Your task to perform on an android device: Clear all items from cart on target. Add dell xps to the cart on target Image 0: 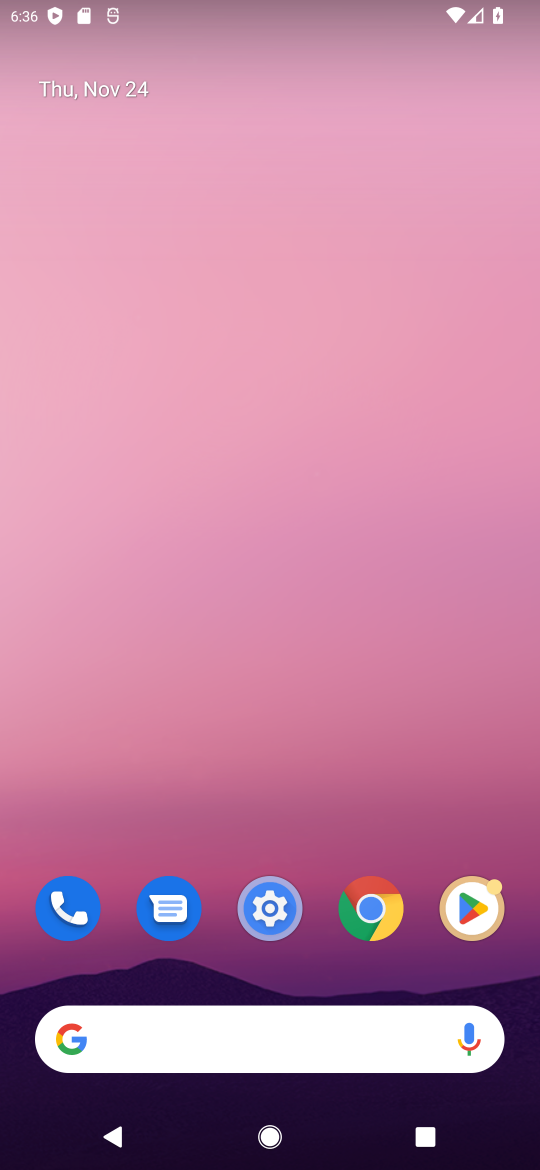
Step 0: click (289, 1021)
Your task to perform on an android device: Clear all items from cart on target. Add dell xps to the cart on target Image 1: 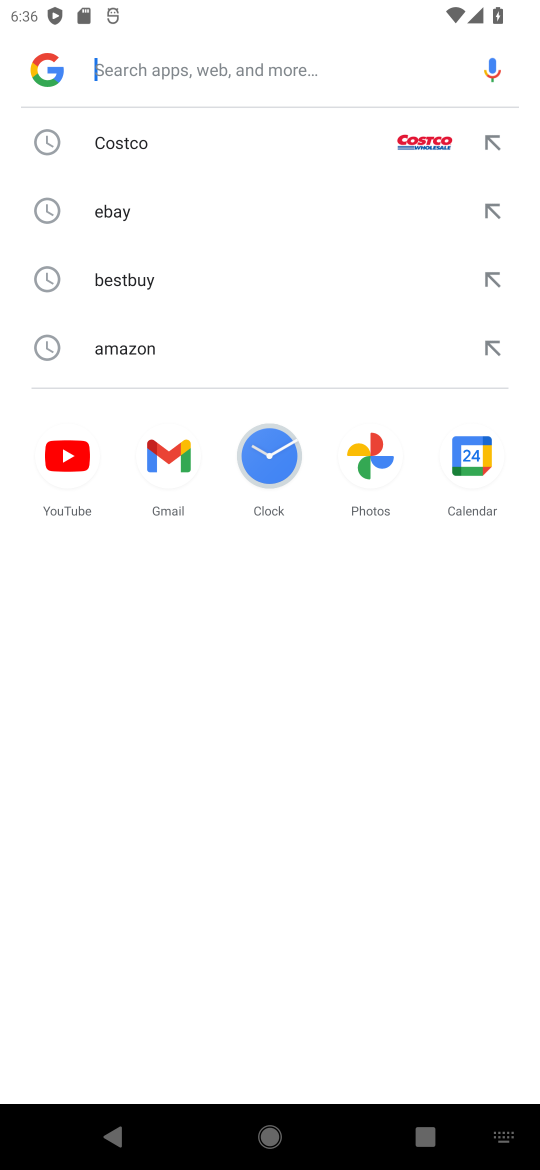
Step 1: type "taget"
Your task to perform on an android device: Clear all items from cart on target. Add dell xps to the cart on target Image 2: 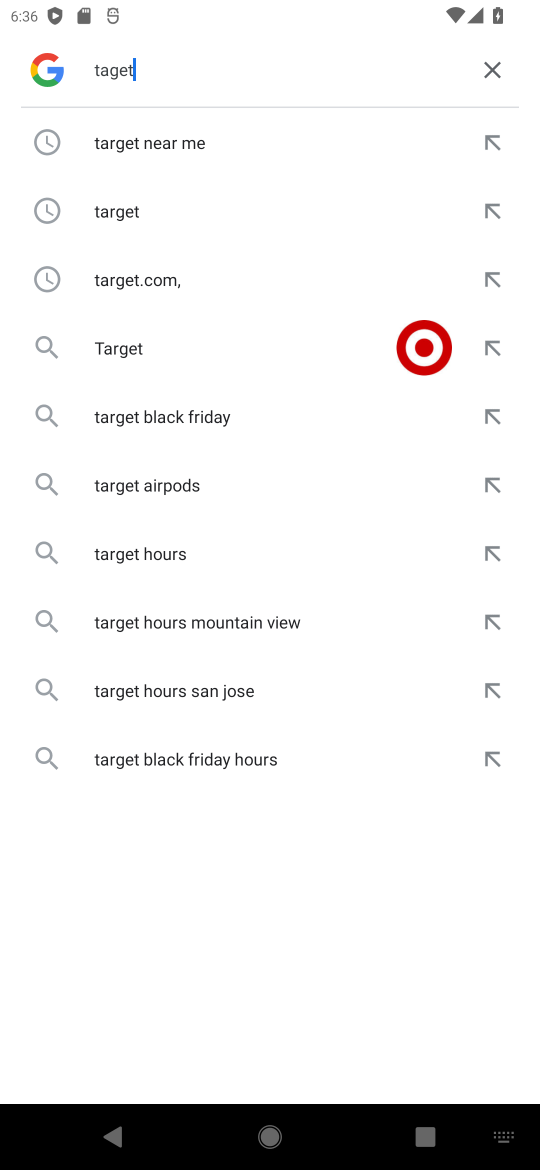
Step 2: click (103, 226)
Your task to perform on an android device: Clear all items from cart on target. Add dell xps to the cart on target Image 3: 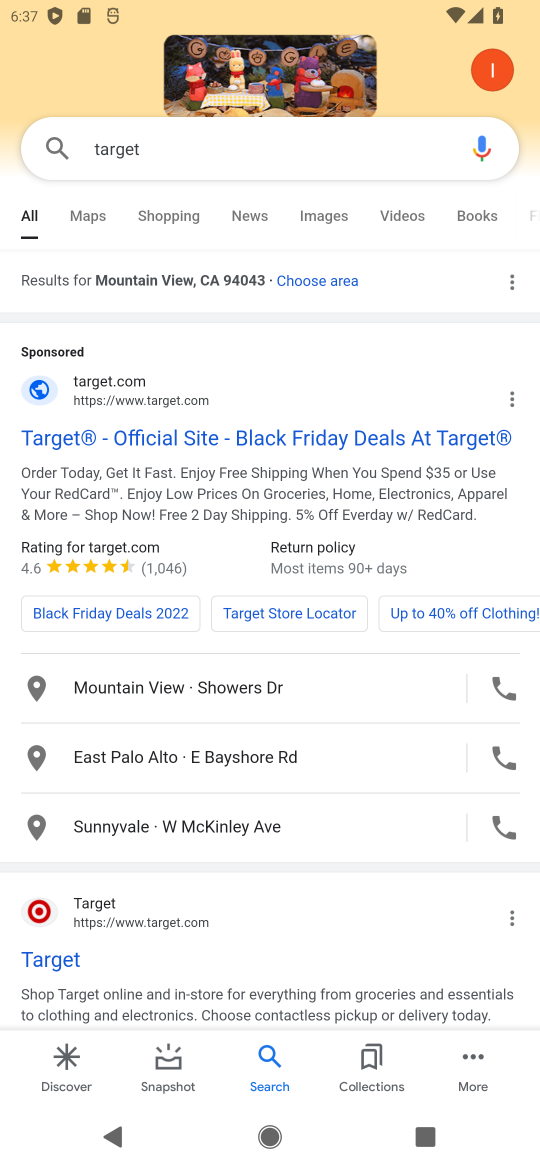
Step 3: click (148, 447)
Your task to perform on an android device: Clear all items from cart on target. Add dell xps to the cart on target Image 4: 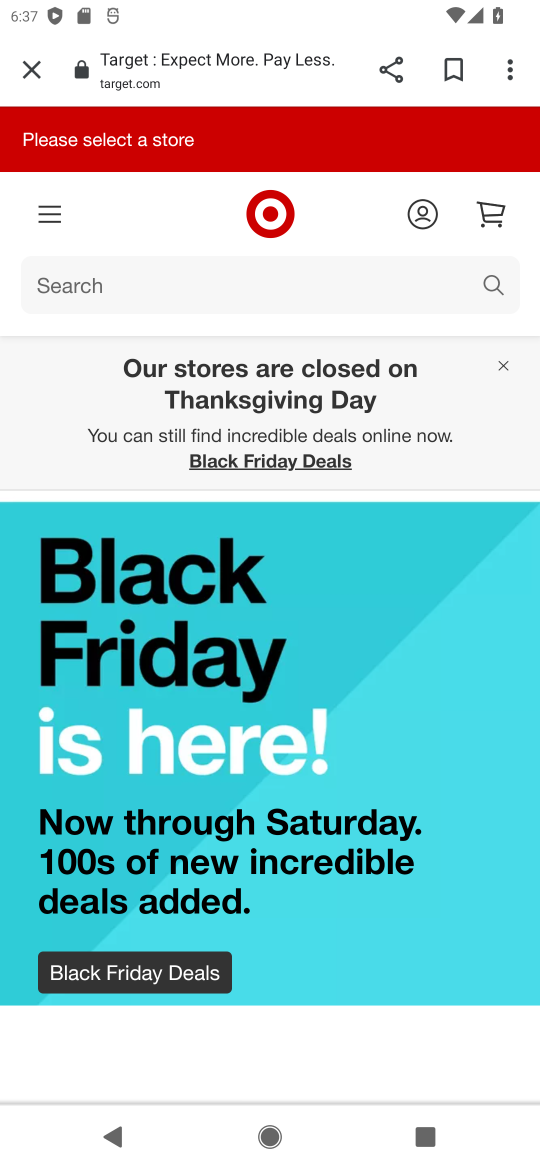
Step 4: click (454, 298)
Your task to perform on an android device: Clear all items from cart on target. Add dell xps to the cart on target Image 5: 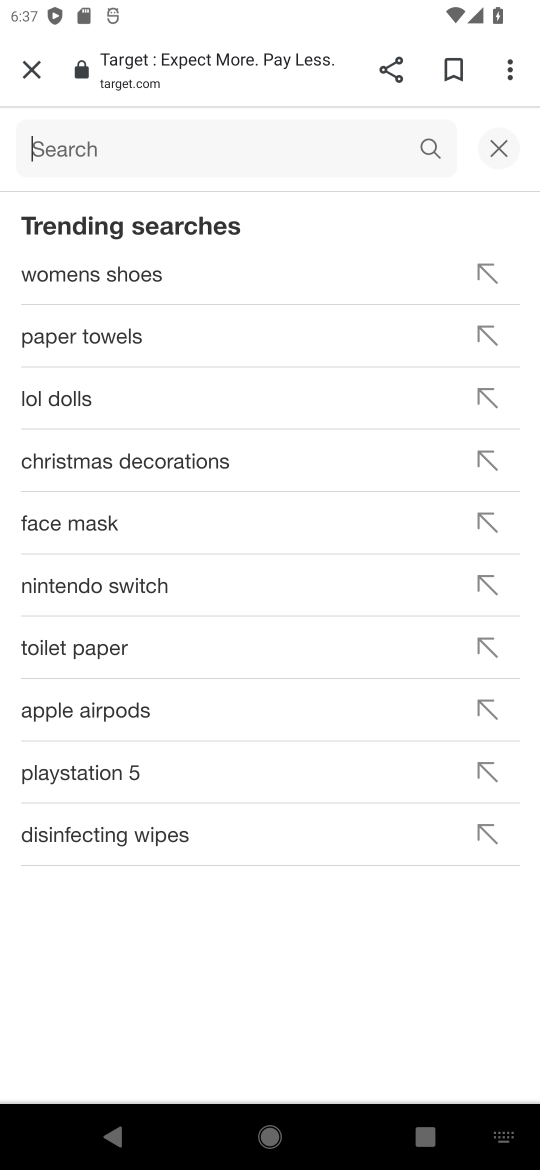
Step 5: type "dell xps"
Your task to perform on an android device: Clear all items from cart on target. Add dell xps to the cart on target Image 6: 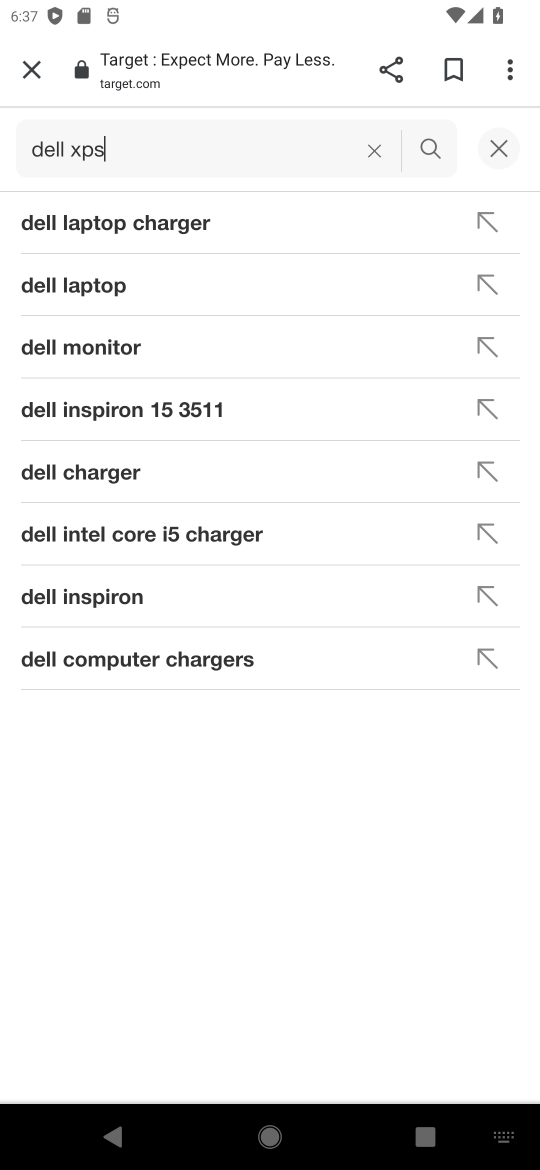
Step 6: click (419, 166)
Your task to perform on an android device: Clear all items from cart on target. Add dell xps to the cart on target Image 7: 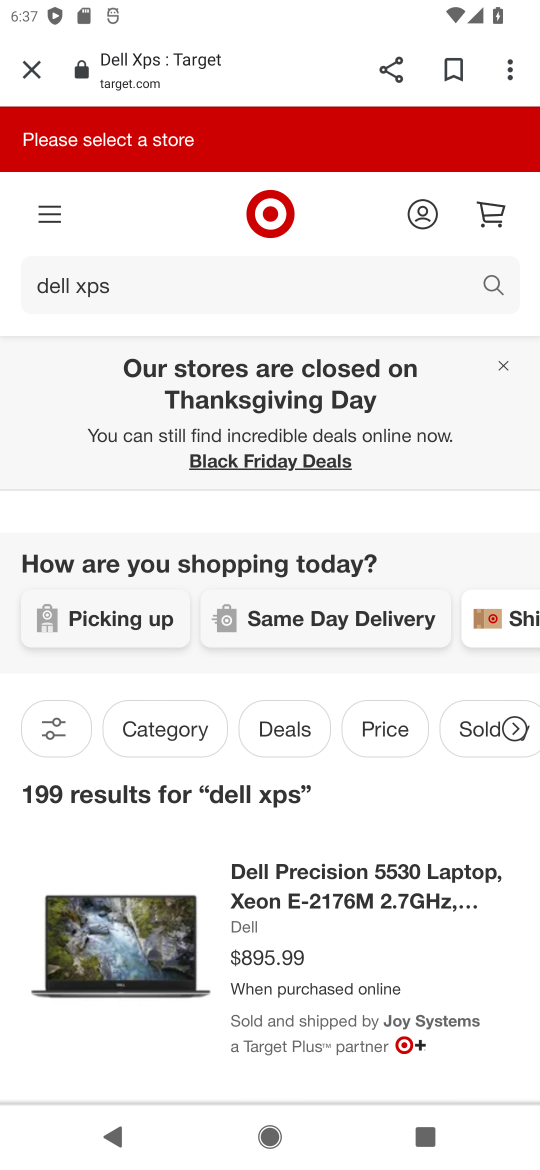
Step 7: click (307, 870)
Your task to perform on an android device: Clear all items from cart on target. Add dell xps to the cart on target Image 8: 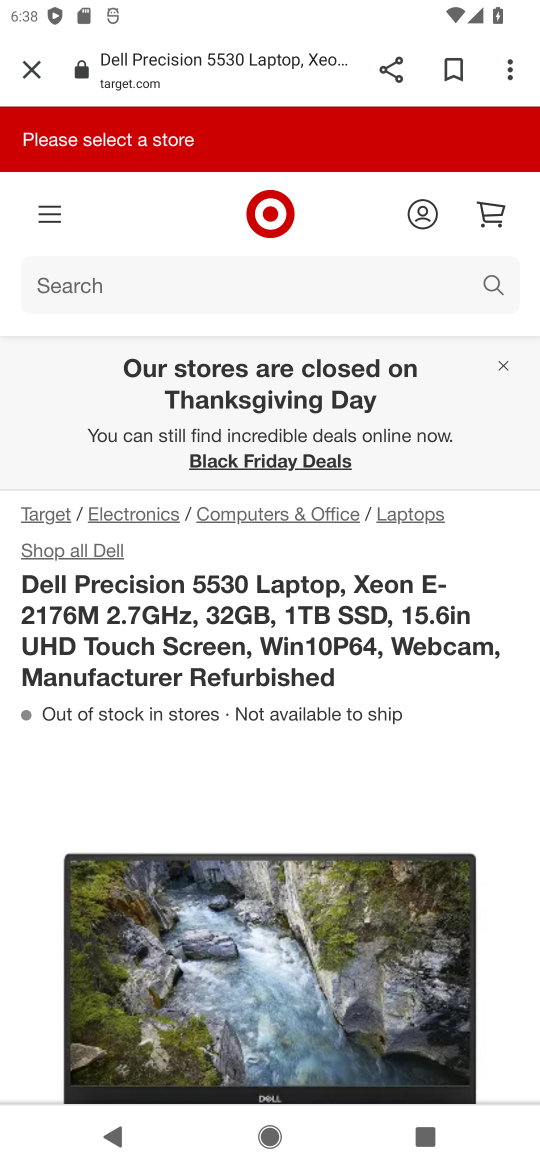
Step 8: drag from (315, 758) to (312, 523)
Your task to perform on an android device: Clear all items from cart on target. Add dell xps to the cart on target Image 9: 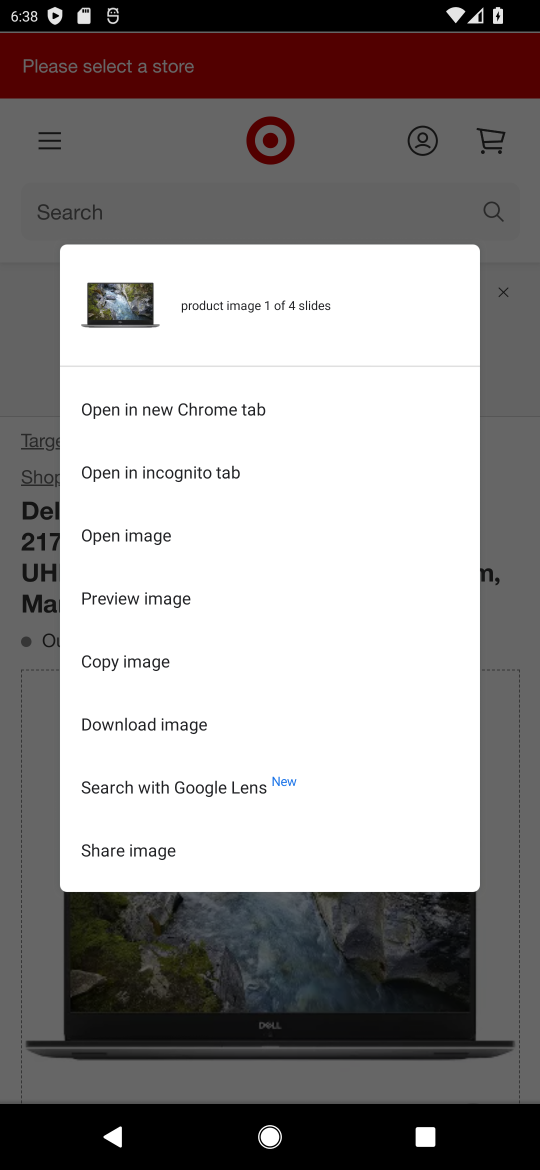
Step 9: click (523, 421)
Your task to perform on an android device: Clear all items from cart on target. Add dell xps to the cart on target Image 10: 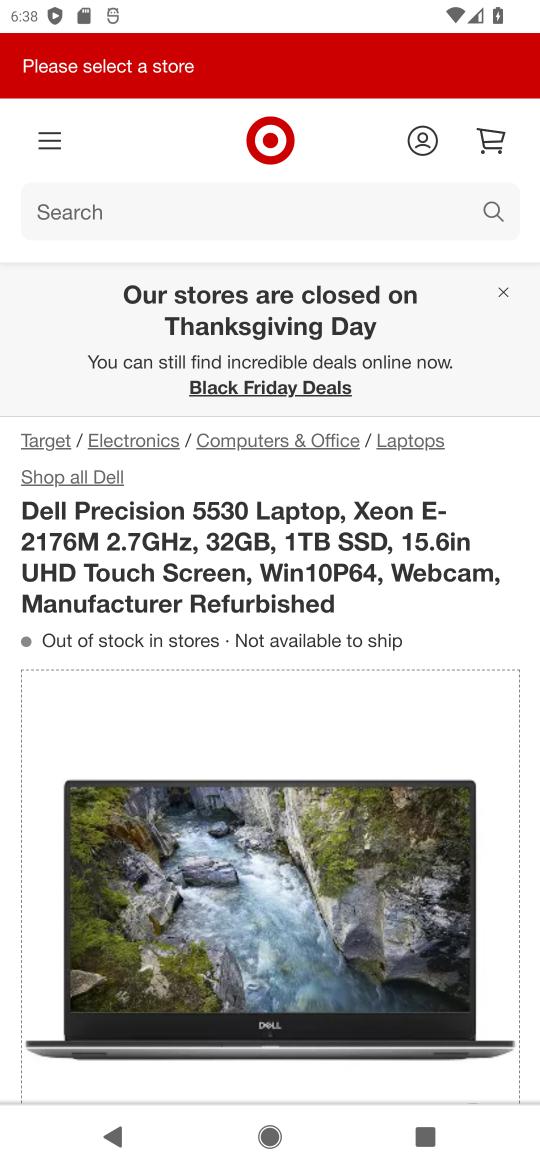
Step 10: drag from (92, 1097) to (239, 399)
Your task to perform on an android device: Clear all items from cart on target. Add dell xps to the cart on target Image 11: 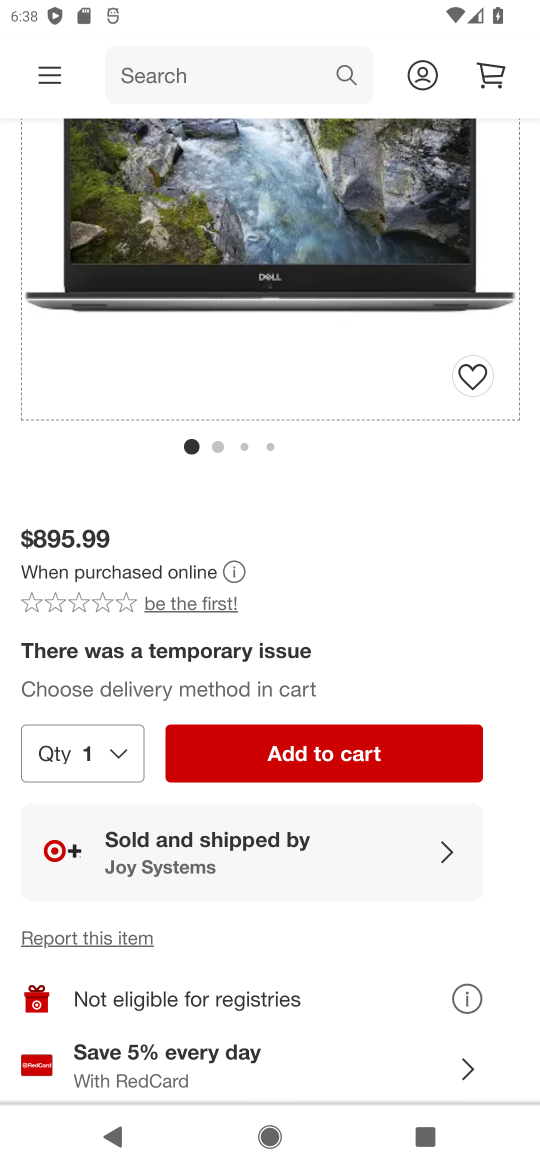
Step 11: click (334, 764)
Your task to perform on an android device: Clear all items from cart on target. Add dell xps to the cart on target Image 12: 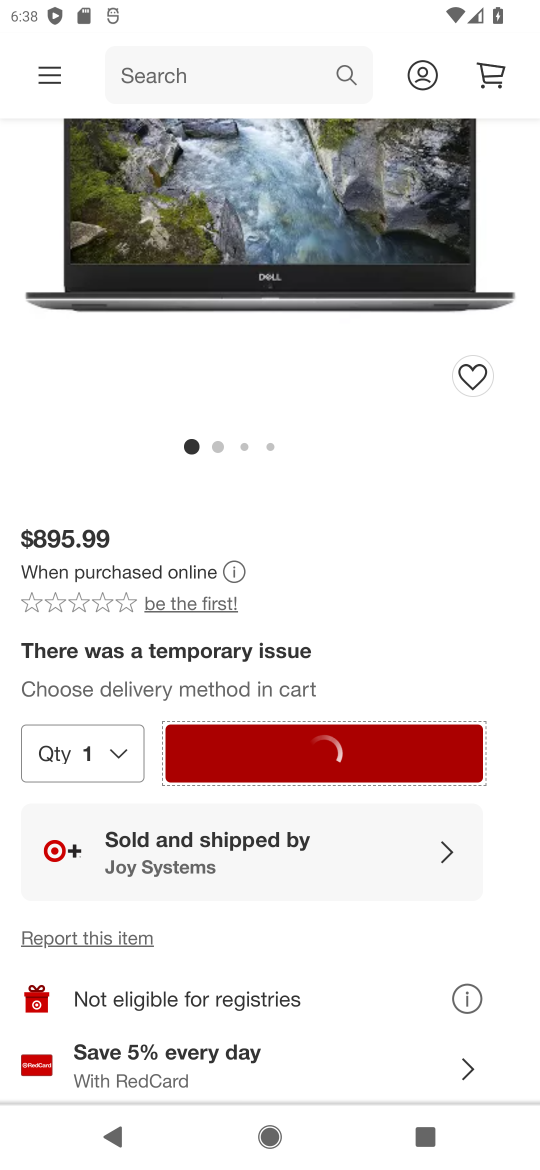
Step 12: task complete